Your task to perform on an android device: turn on showing notifications on the lock screen Image 0: 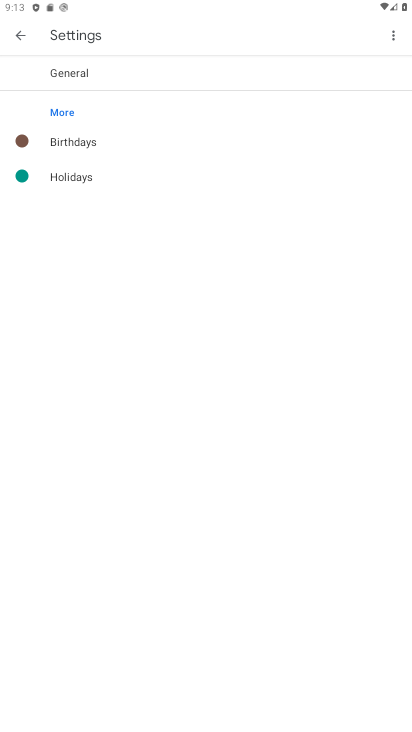
Step 0: press home button
Your task to perform on an android device: turn on showing notifications on the lock screen Image 1: 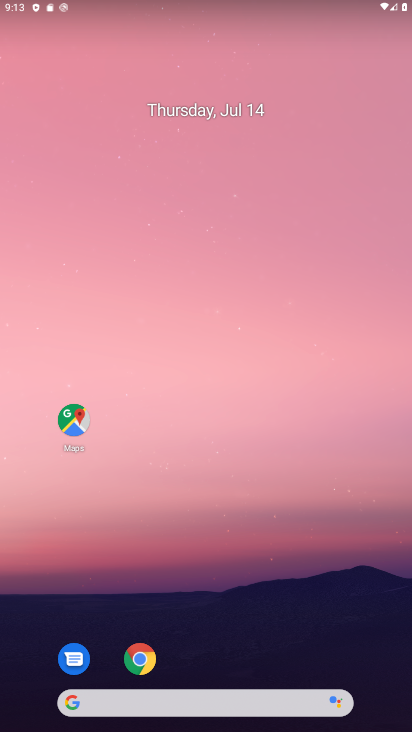
Step 1: drag from (263, 625) to (278, 43)
Your task to perform on an android device: turn on showing notifications on the lock screen Image 2: 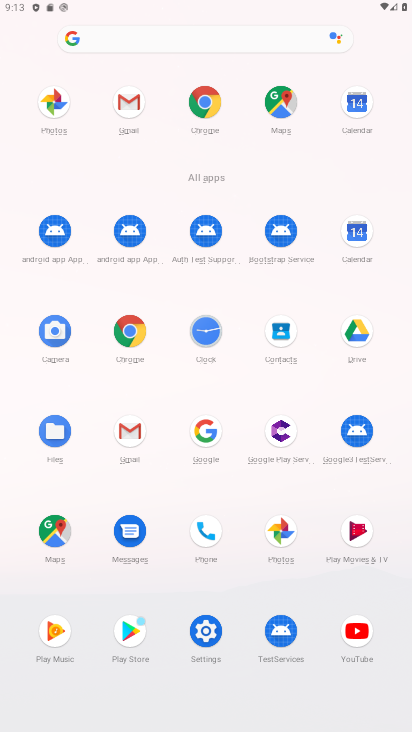
Step 2: click (212, 637)
Your task to perform on an android device: turn on showing notifications on the lock screen Image 3: 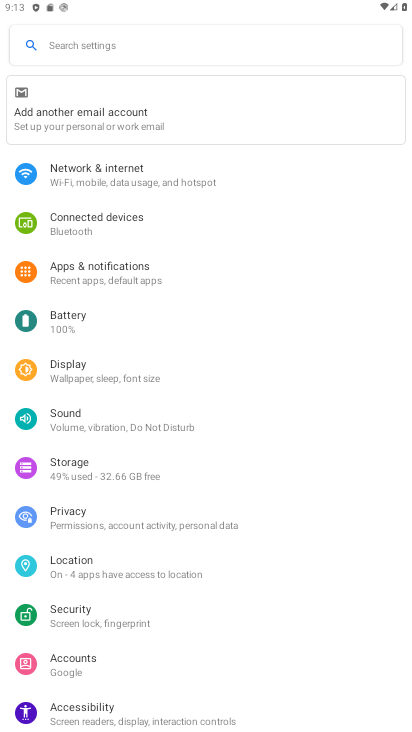
Step 3: click (168, 263)
Your task to perform on an android device: turn on showing notifications on the lock screen Image 4: 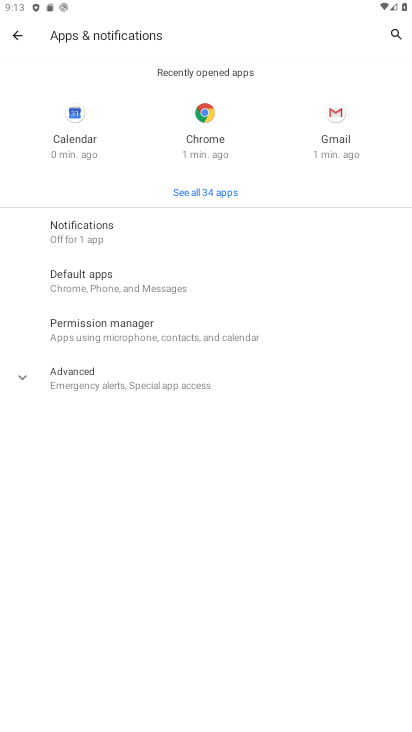
Step 4: click (125, 233)
Your task to perform on an android device: turn on showing notifications on the lock screen Image 5: 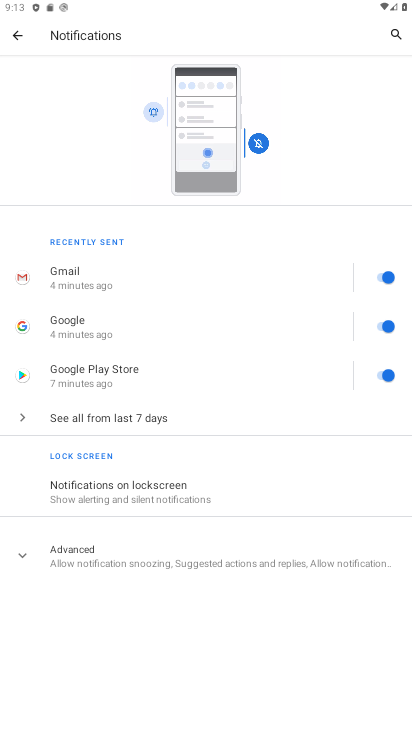
Step 5: click (169, 490)
Your task to perform on an android device: turn on showing notifications on the lock screen Image 6: 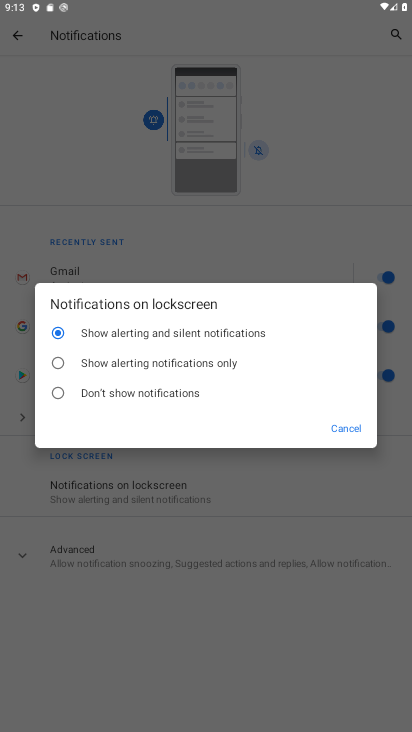
Step 6: task complete